Your task to perform on an android device: move a message to another label in the gmail app Image 0: 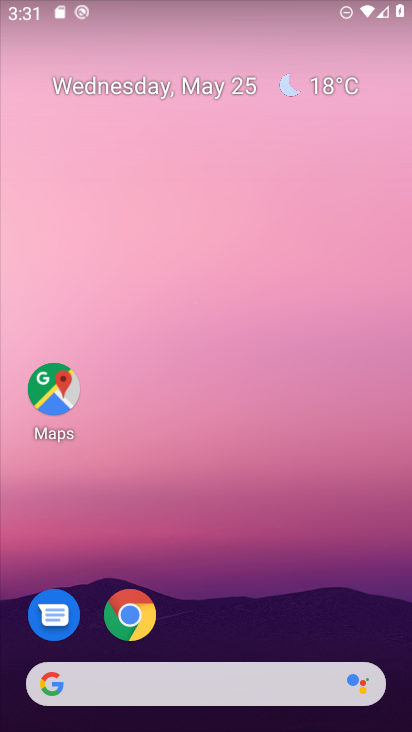
Step 0: drag from (244, 600) to (296, 41)
Your task to perform on an android device: move a message to another label in the gmail app Image 1: 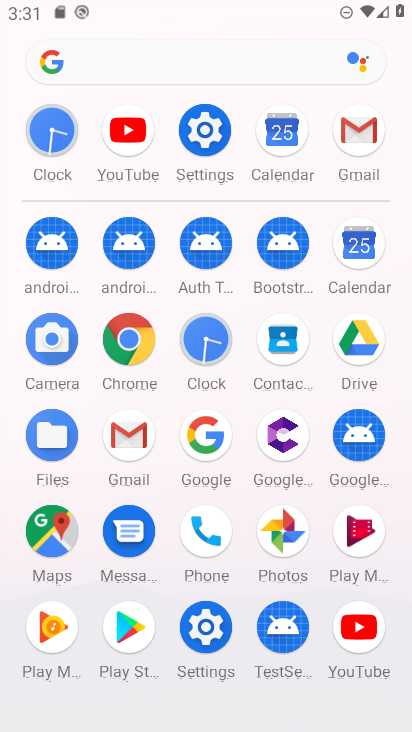
Step 1: click (351, 126)
Your task to perform on an android device: move a message to another label in the gmail app Image 2: 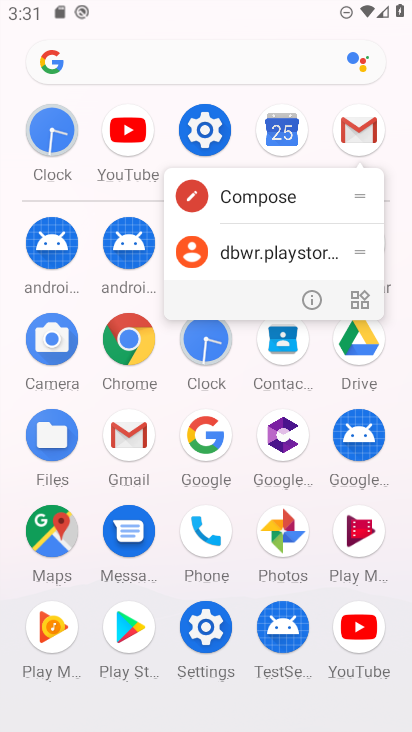
Step 2: click (351, 127)
Your task to perform on an android device: move a message to another label in the gmail app Image 3: 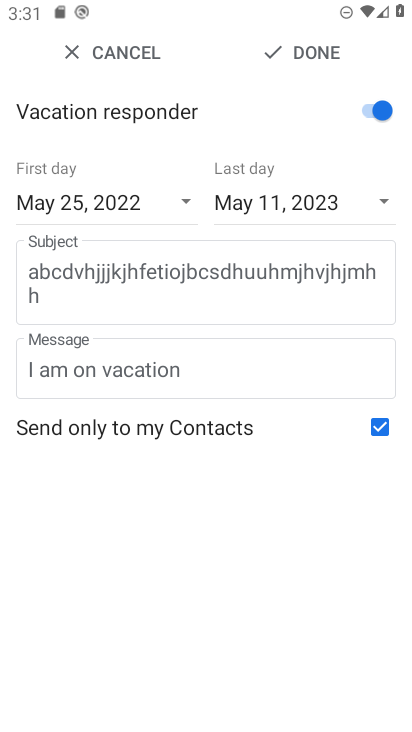
Step 3: press back button
Your task to perform on an android device: move a message to another label in the gmail app Image 4: 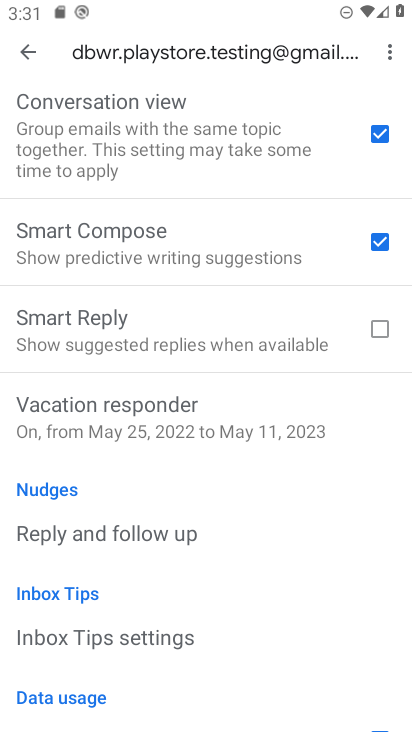
Step 4: drag from (265, 196) to (244, 644)
Your task to perform on an android device: move a message to another label in the gmail app Image 5: 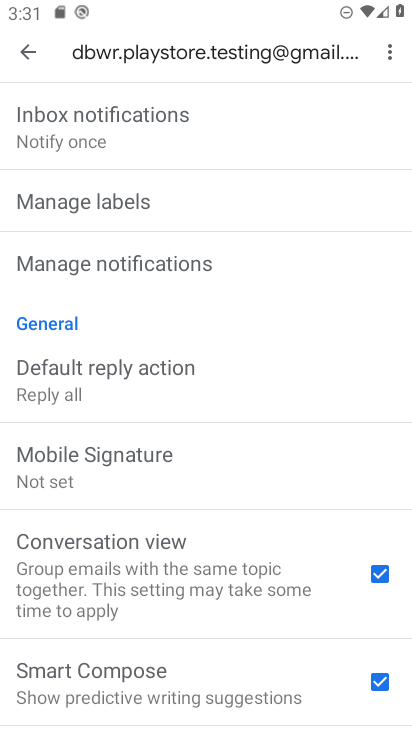
Step 5: drag from (216, 219) to (191, 658)
Your task to perform on an android device: move a message to another label in the gmail app Image 6: 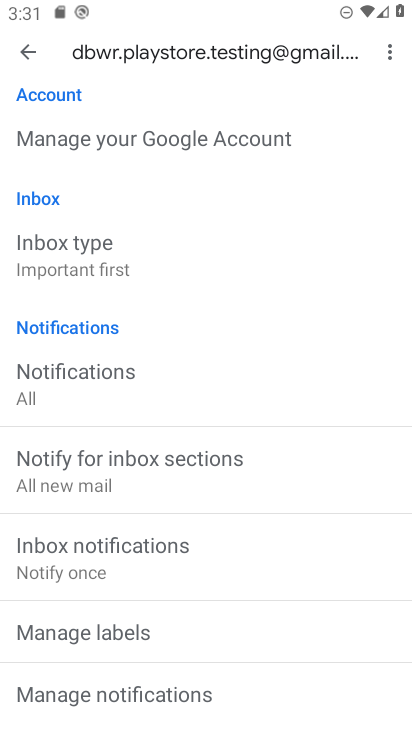
Step 6: drag from (182, 218) to (176, 498)
Your task to perform on an android device: move a message to another label in the gmail app Image 7: 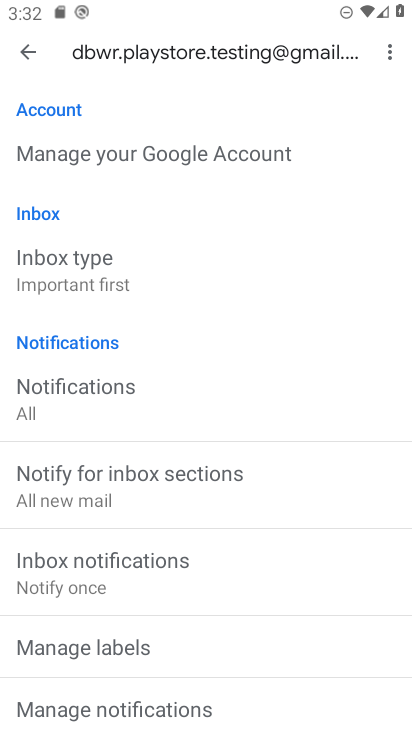
Step 7: click (24, 51)
Your task to perform on an android device: move a message to another label in the gmail app Image 8: 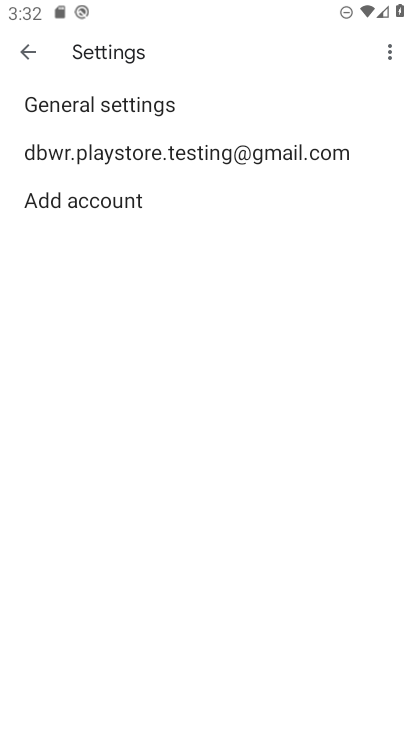
Step 8: click (29, 49)
Your task to perform on an android device: move a message to another label in the gmail app Image 9: 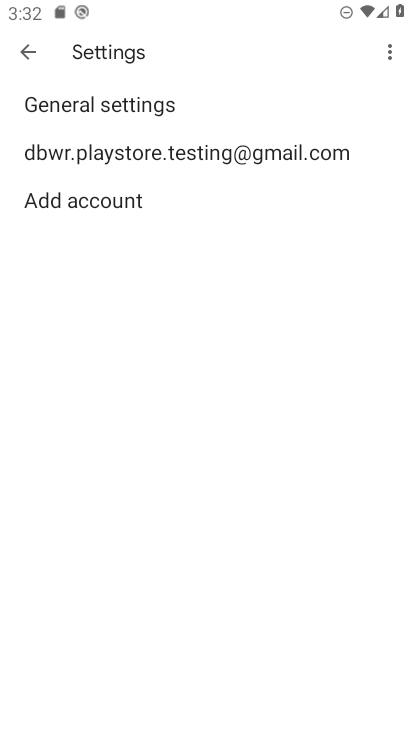
Step 9: click (29, 46)
Your task to perform on an android device: move a message to another label in the gmail app Image 10: 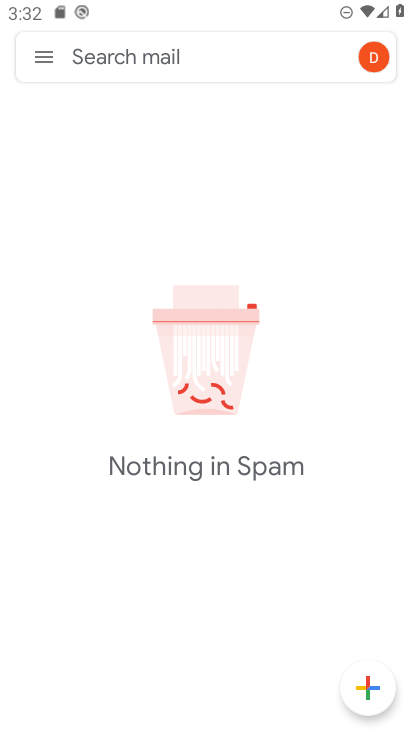
Step 10: click (36, 54)
Your task to perform on an android device: move a message to another label in the gmail app Image 11: 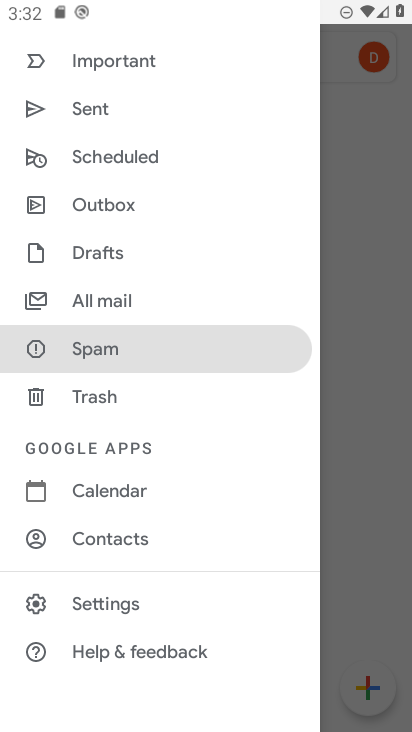
Step 11: click (89, 296)
Your task to perform on an android device: move a message to another label in the gmail app Image 12: 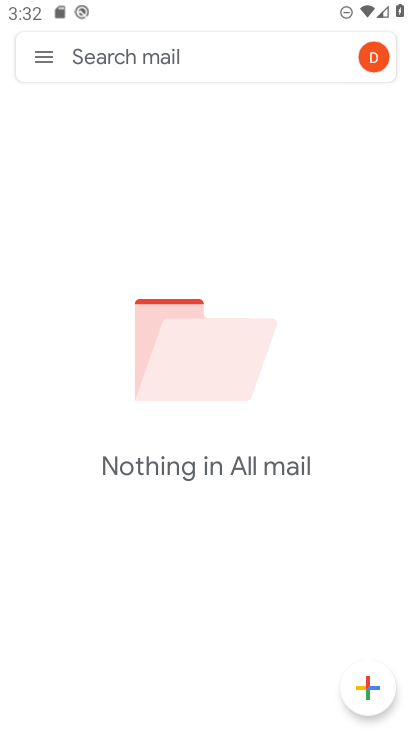
Step 12: task complete